Your task to perform on an android device: Go to CNN.com Image 0: 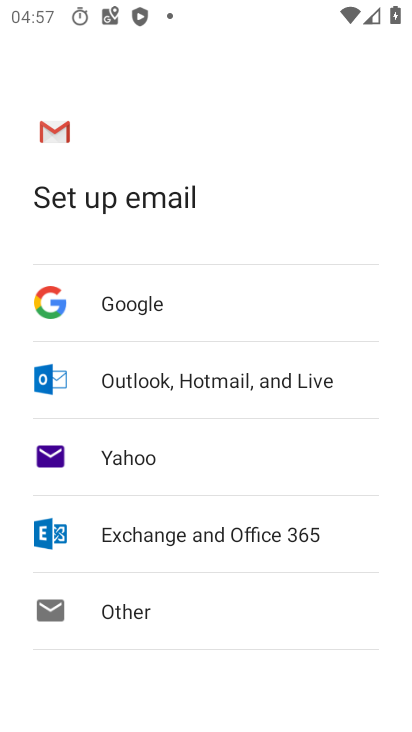
Step 0: press home button
Your task to perform on an android device: Go to CNN.com Image 1: 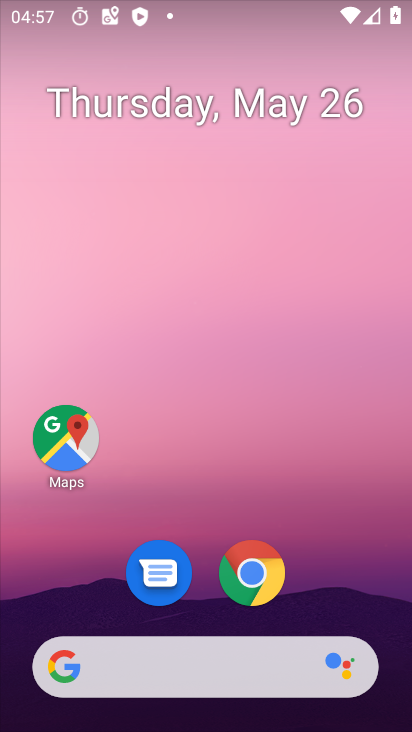
Step 1: click (237, 590)
Your task to perform on an android device: Go to CNN.com Image 2: 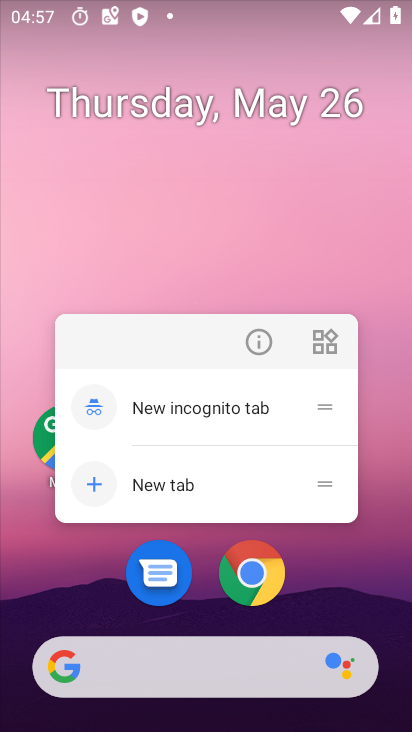
Step 2: click (257, 583)
Your task to perform on an android device: Go to CNN.com Image 3: 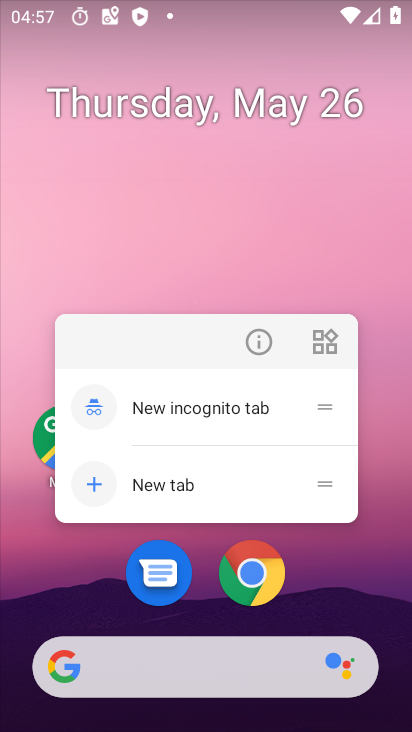
Step 3: click (254, 580)
Your task to perform on an android device: Go to CNN.com Image 4: 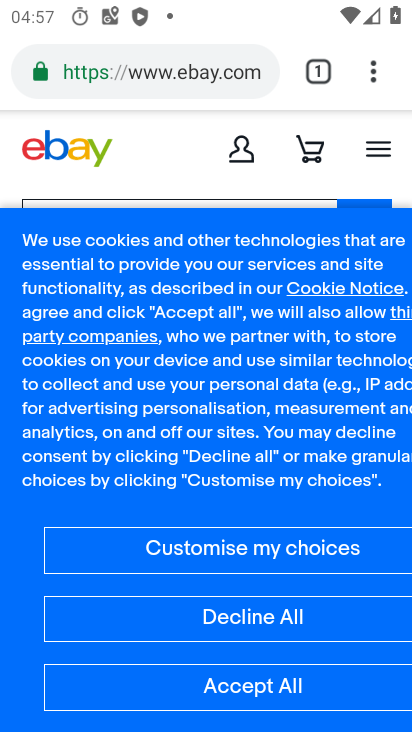
Step 4: press back button
Your task to perform on an android device: Go to CNN.com Image 5: 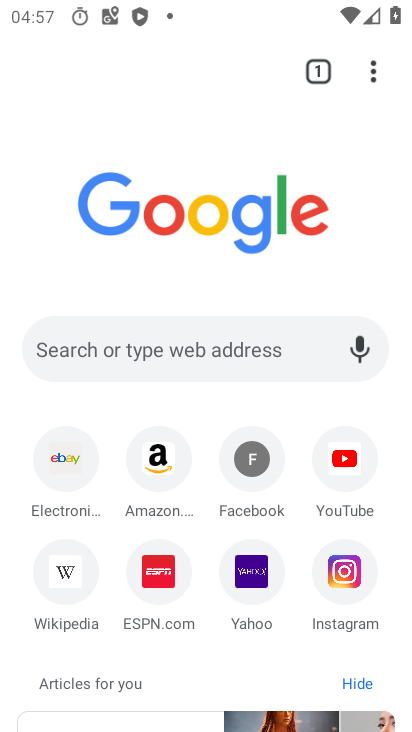
Step 5: click (137, 351)
Your task to perform on an android device: Go to CNN.com Image 6: 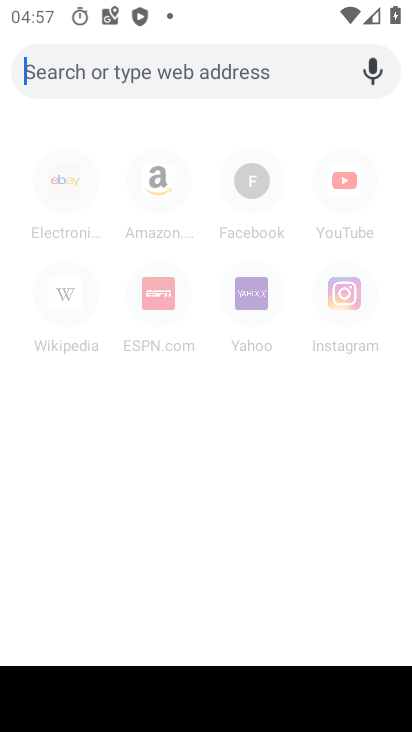
Step 6: type "www.cnn.com"
Your task to perform on an android device: Go to CNN.com Image 7: 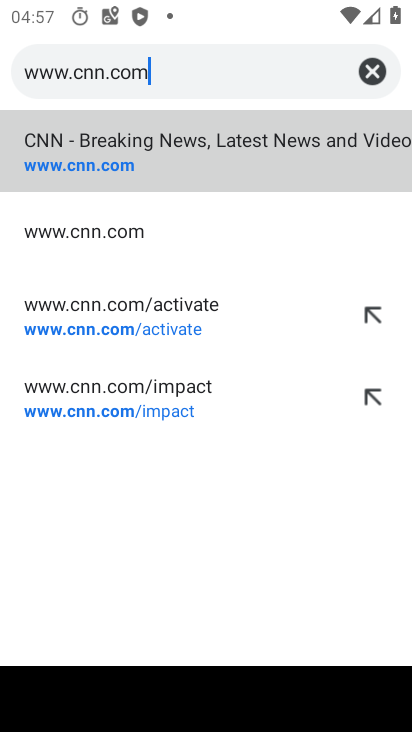
Step 7: click (55, 170)
Your task to perform on an android device: Go to CNN.com Image 8: 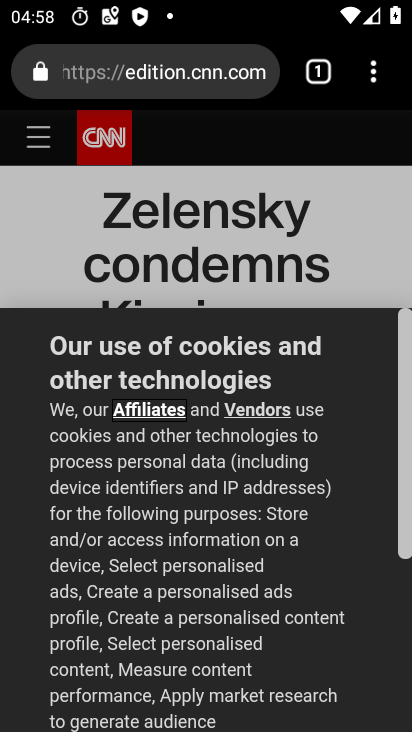
Step 8: task complete